Your task to perform on an android device: turn on airplane mode Image 0: 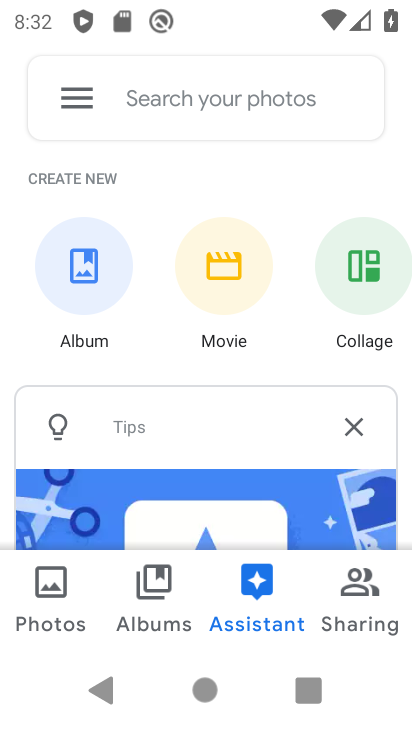
Step 0: press home button
Your task to perform on an android device: turn on airplane mode Image 1: 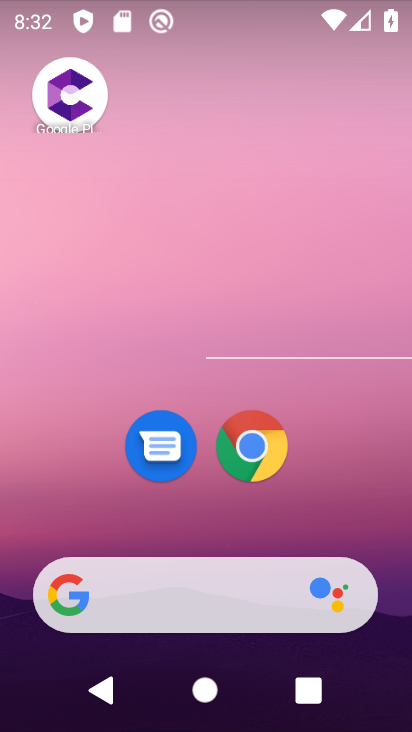
Step 1: drag from (394, 653) to (339, 155)
Your task to perform on an android device: turn on airplane mode Image 2: 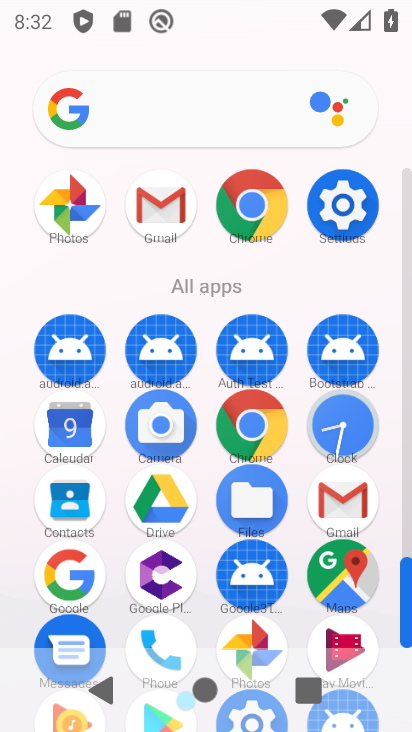
Step 2: click (405, 659)
Your task to perform on an android device: turn on airplane mode Image 3: 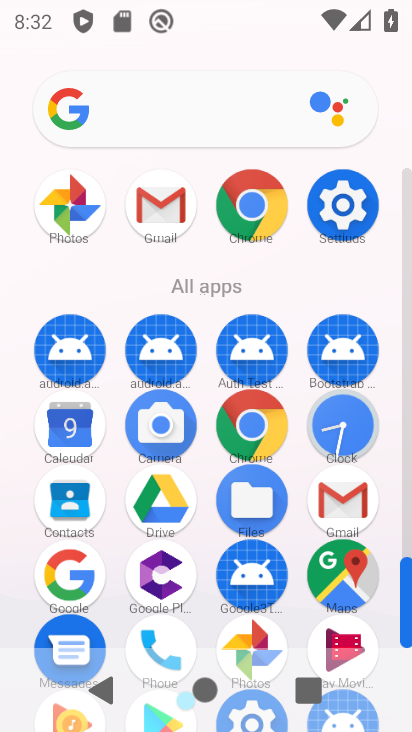
Step 3: click (406, 542)
Your task to perform on an android device: turn on airplane mode Image 4: 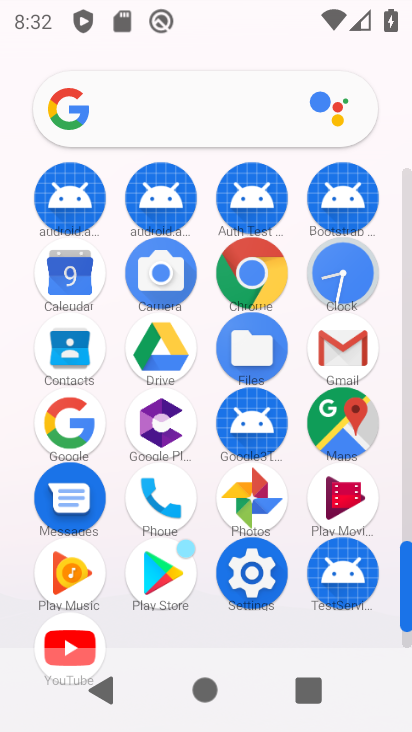
Step 4: click (249, 570)
Your task to perform on an android device: turn on airplane mode Image 5: 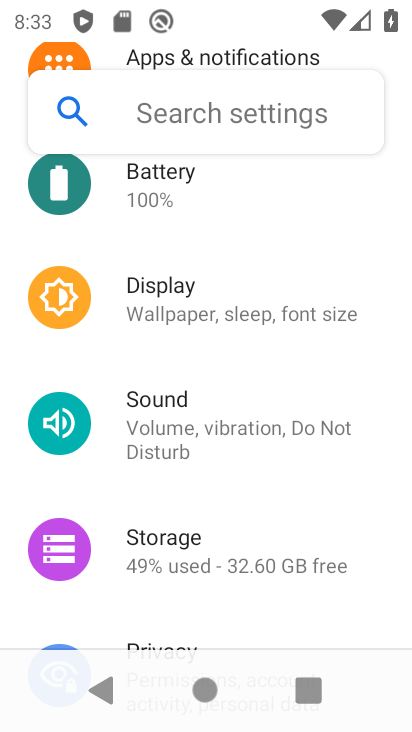
Step 5: drag from (344, 228) to (347, 535)
Your task to perform on an android device: turn on airplane mode Image 6: 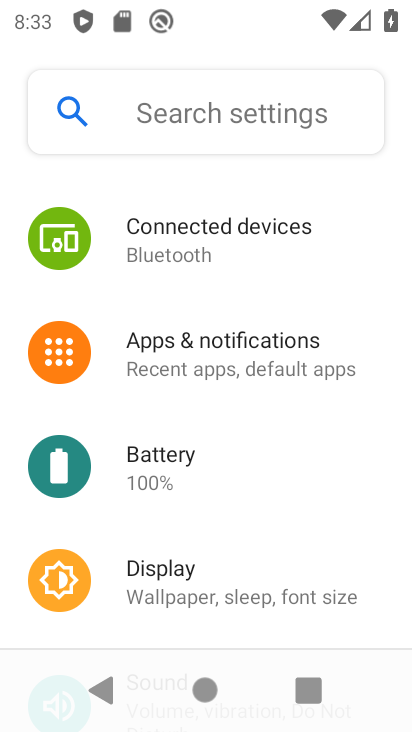
Step 6: drag from (301, 293) to (300, 600)
Your task to perform on an android device: turn on airplane mode Image 7: 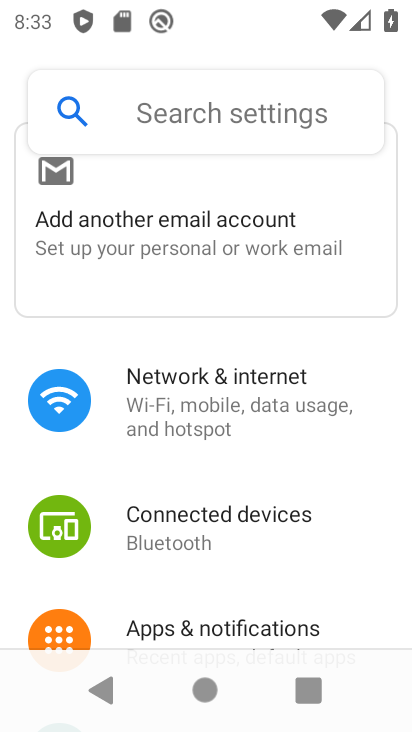
Step 7: click (203, 380)
Your task to perform on an android device: turn on airplane mode Image 8: 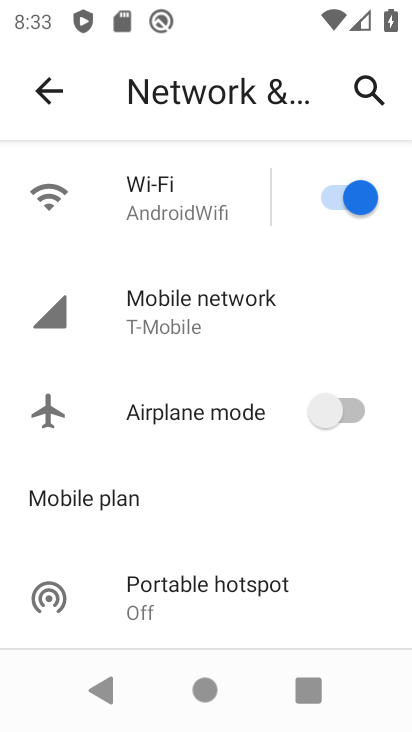
Step 8: click (348, 402)
Your task to perform on an android device: turn on airplane mode Image 9: 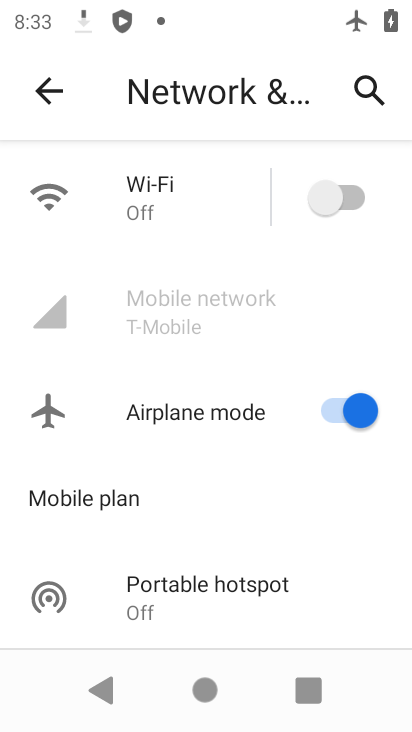
Step 9: task complete